Your task to perform on an android device: turn on notifications settings in the gmail app Image 0: 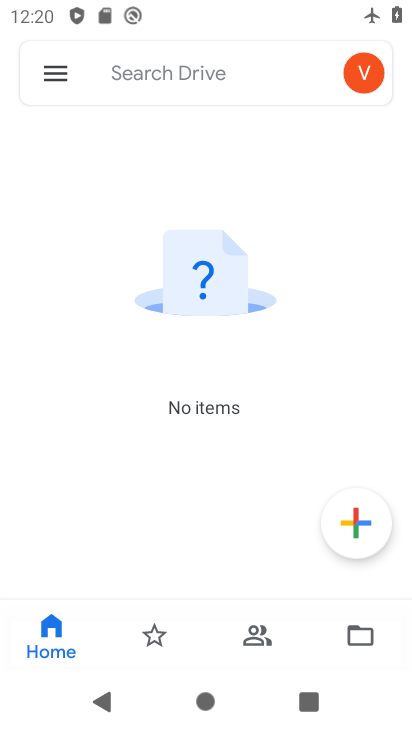
Step 0: press home button
Your task to perform on an android device: turn on notifications settings in the gmail app Image 1: 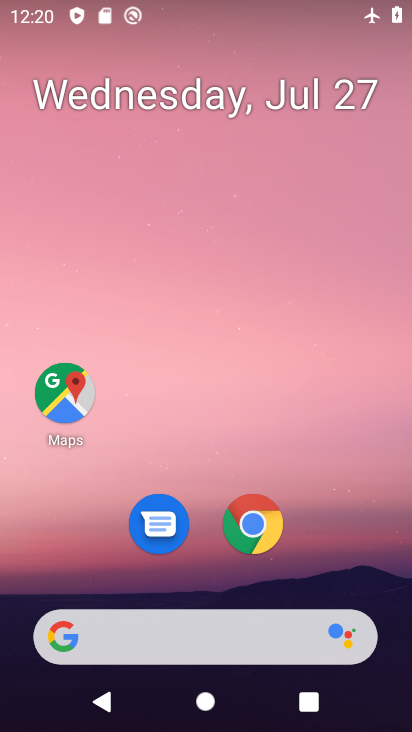
Step 1: drag from (335, 524) to (371, 85)
Your task to perform on an android device: turn on notifications settings in the gmail app Image 2: 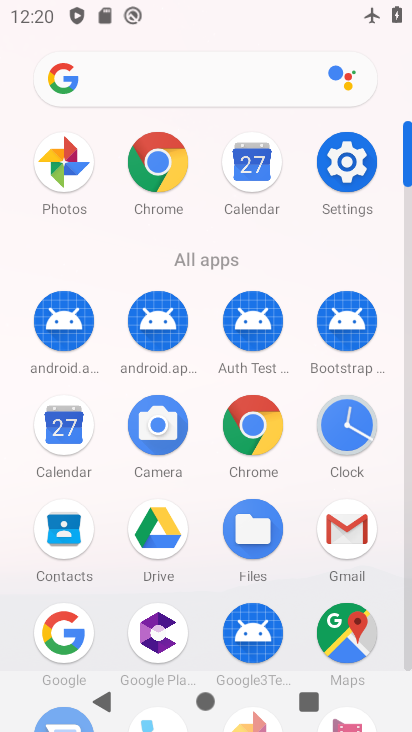
Step 2: click (348, 517)
Your task to perform on an android device: turn on notifications settings in the gmail app Image 3: 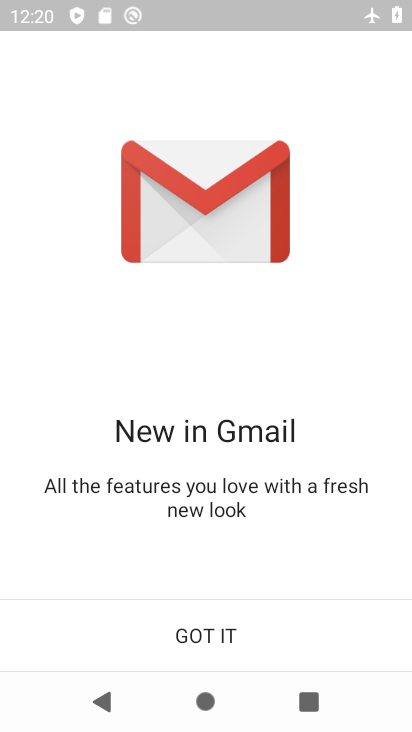
Step 3: click (264, 622)
Your task to perform on an android device: turn on notifications settings in the gmail app Image 4: 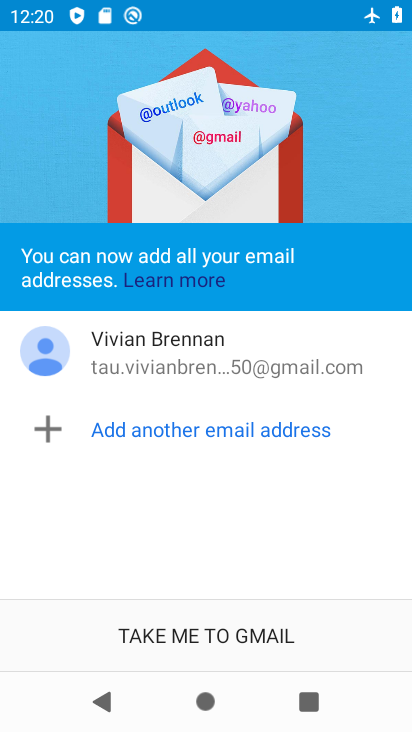
Step 4: click (264, 624)
Your task to perform on an android device: turn on notifications settings in the gmail app Image 5: 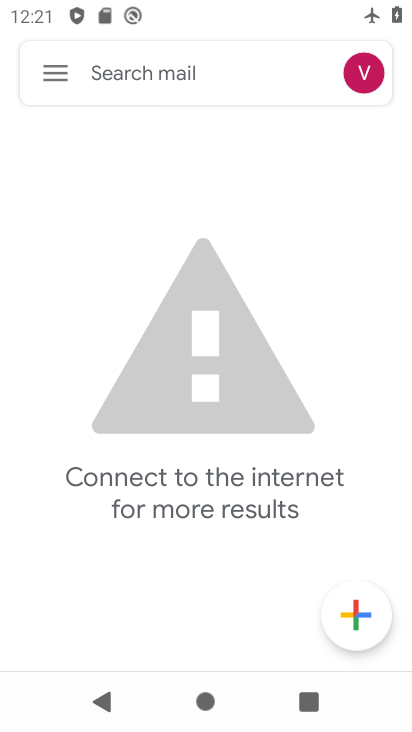
Step 5: task complete